Your task to perform on an android device: Check the news Image 0: 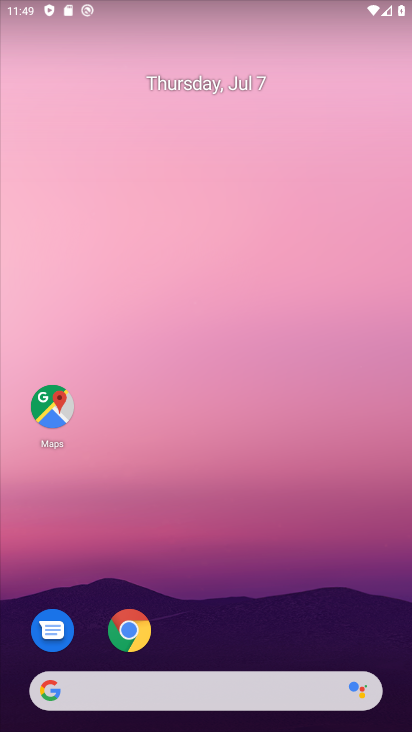
Step 0: drag from (399, 683) to (230, 23)
Your task to perform on an android device: Check the news Image 1: 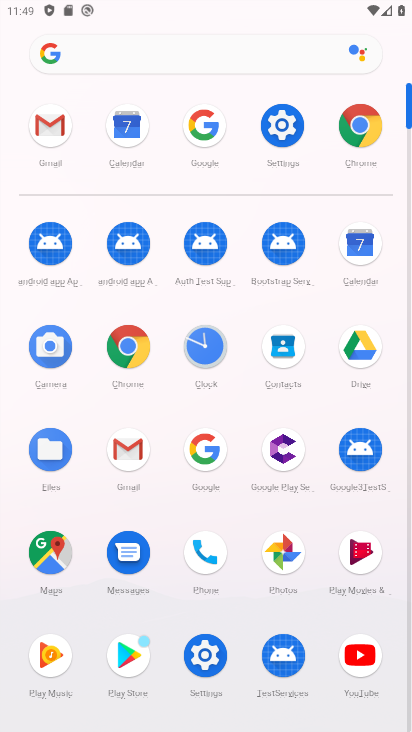
Step 1: click (187, 455)
Your task to perform on an android device: Check the news Image 2: 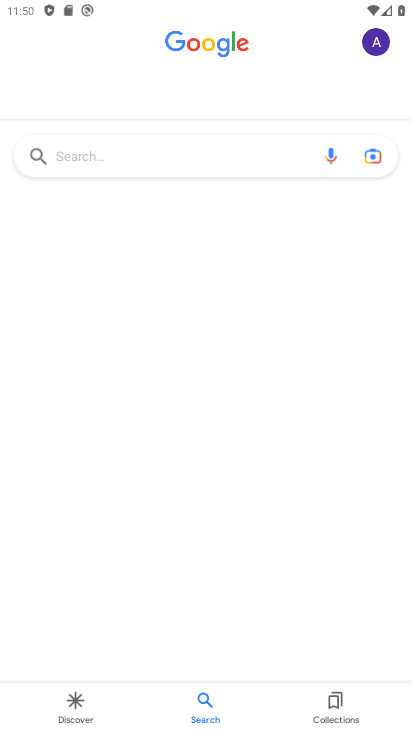
Step 2: click (144, 165)
Your task to perform on an android device: Check the news Image 3: 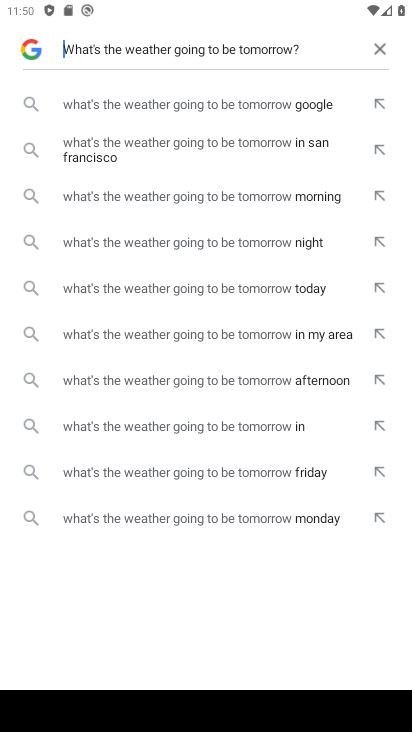
Step 3: click (376, 52)
Your task to perform on an android device: Check the news Image 4: 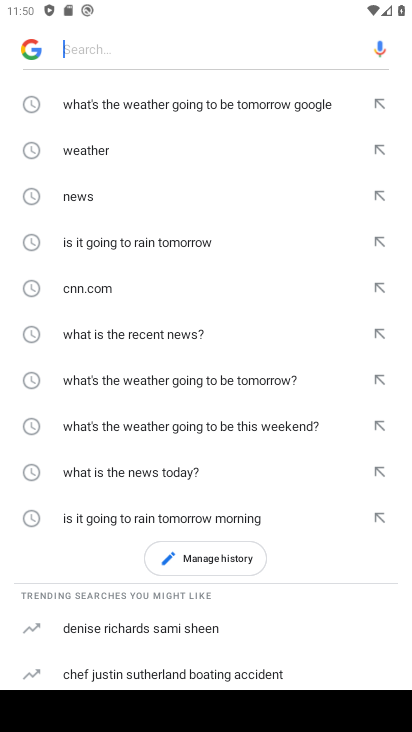
Step 4: type "Check the news"
Your task to perform on an android device: Check the news Image 5: 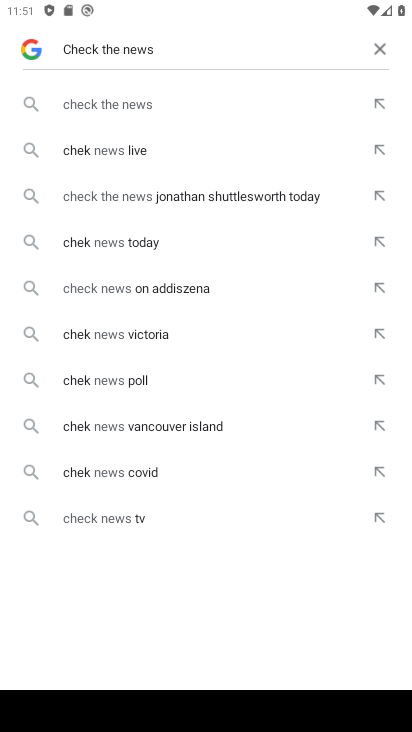
Step 5: click (118, 112)
Your task to perform on an android device: Check the news Image 6: 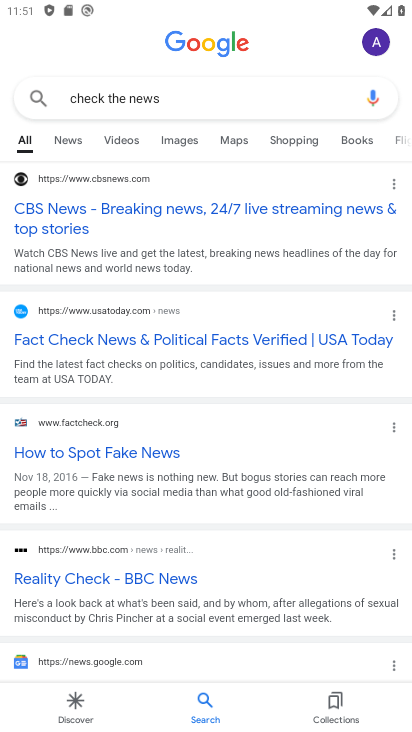
Step 6: task complete